Your task to perform on an android device: turn off priority inbox in the gmail app Image 0: 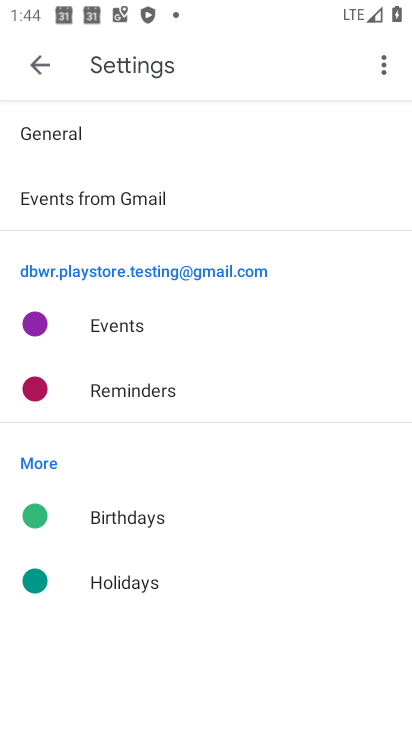
Step 0: press home button
Your task to perform on an android device: turn off priority inbox in the gmail app Image 1: 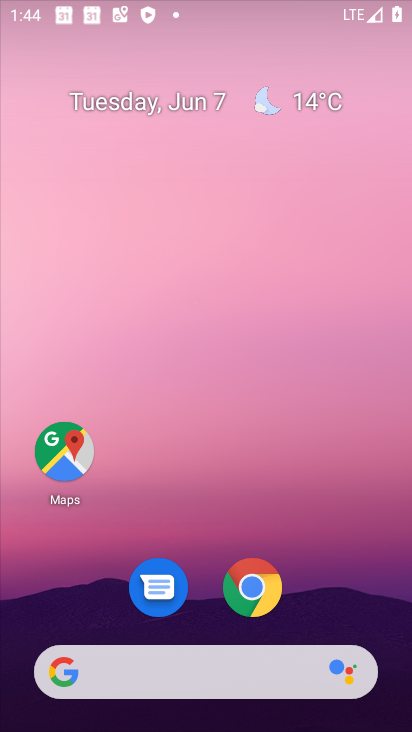
Step 1: drag from (199, 676) to (181, 147)
Your task to perform on an android device: turn off priority inbox in the gmail app Image 2: 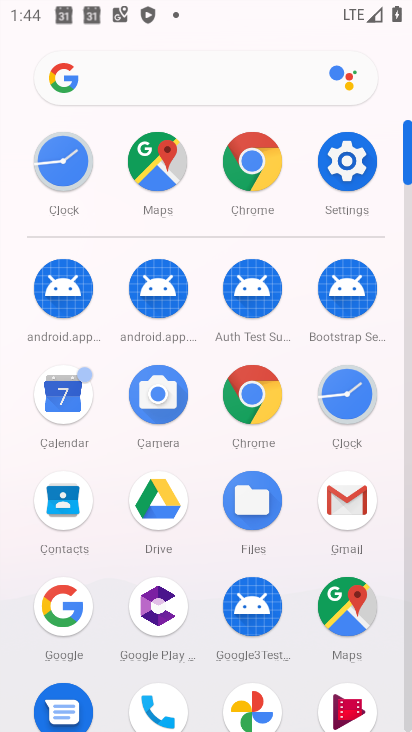
Step 2: click (343, 513)
Your task to perform on an android device: turn off priority inbox in the gmail app Image 3: 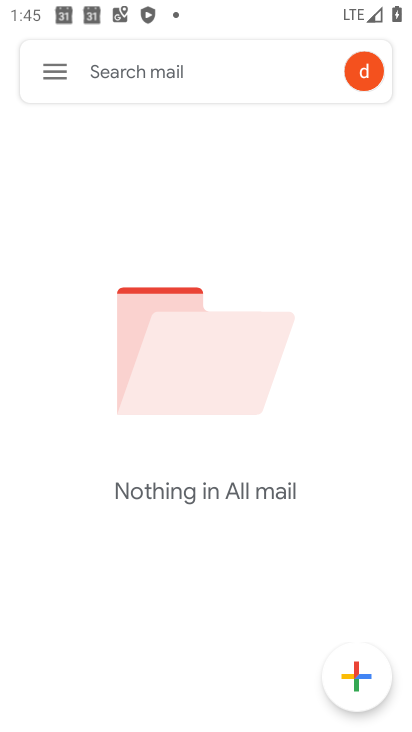
Step 3: click (59, 77)
Your task to perform on an android device: turn off priority inbox in the gmail app Image 4: 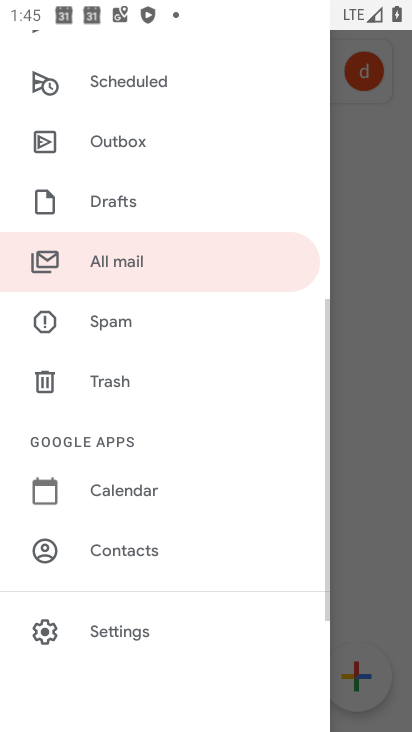
Step 4: click (132, 639)
Your task to perform on an android device: turn off priority inbox in the gmail app Image 5: 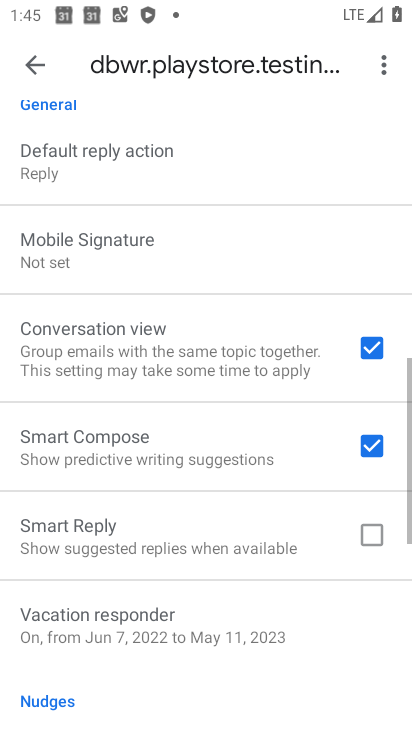
Step 5: drag from (167, 547) to (201, 444)
Your task to perform on an android device: turn off priority inbox in the gmail app Image 6: 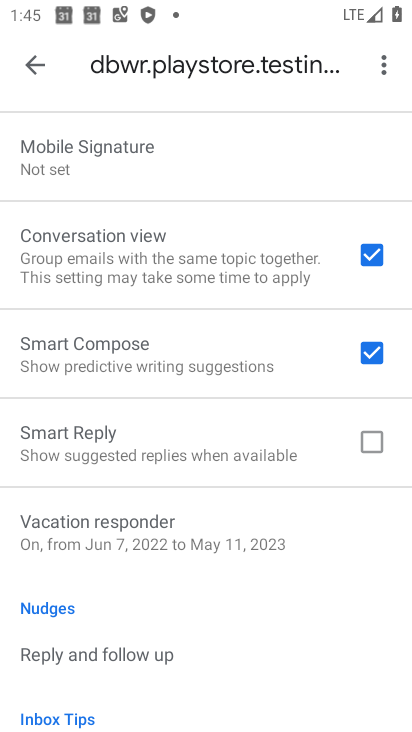
Step 6: drag from (172, 280) to (180, 632)
Your task to perform on an android device: turn off priority inbox in the gmail app Image 7: 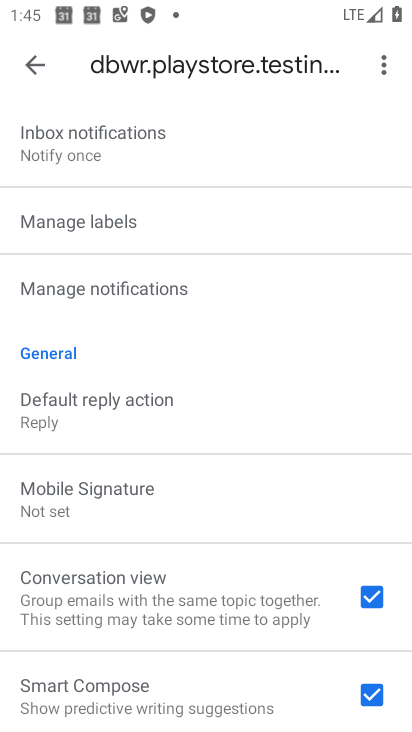
Step 7: click (99, 153)
Your task to perform on an android device: turn off priority inbox in the gmail app Image 8: 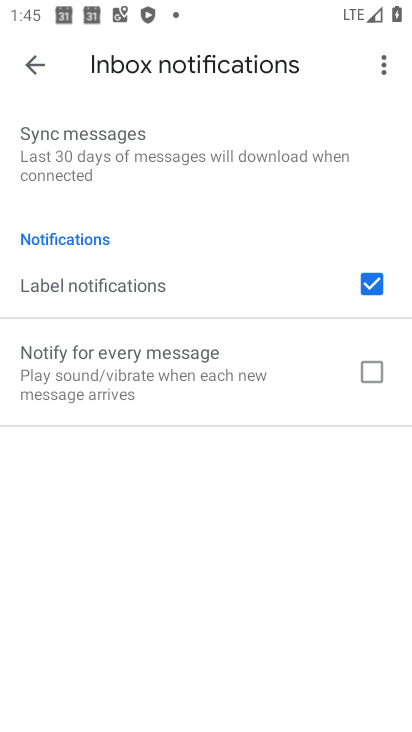
Step 8: click (39, 73)
Your task to perform on an android device: turn off priority inbox in the gmail app Image 9: 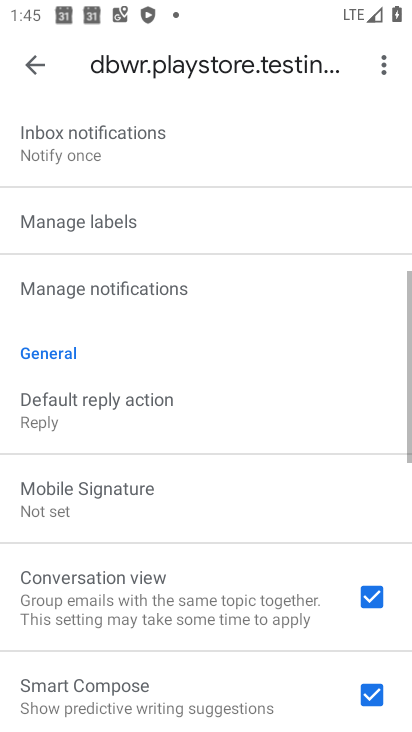
Step 9: drag from (182, 262) to (196, 626)
Your task to perform on an android device: turn off priority inbox in the gmail app Image 10: 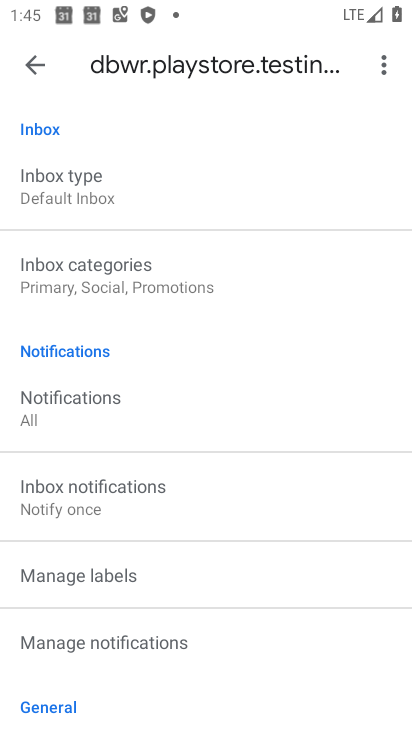
Step 10: click (97, 183)
Your task to perform on an android device: turn off priority inbox in the gmail app Image 11: 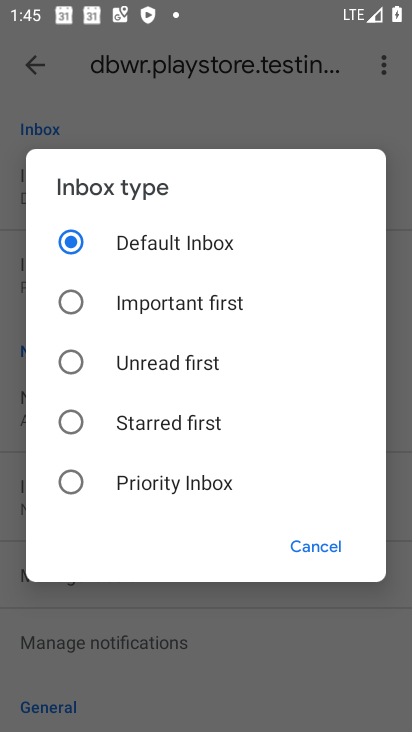
Step 11: task complete